Your task to perform on an android device: Open the Play Movies app and select the watchlist tab. Image 0: 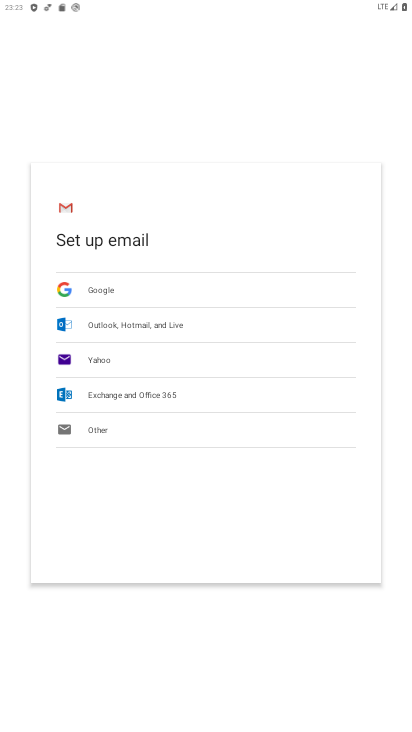
Step 0: press home button
Your task to perform on an android device: Open the Play Movies app and select the watchlist tab. Image 1: 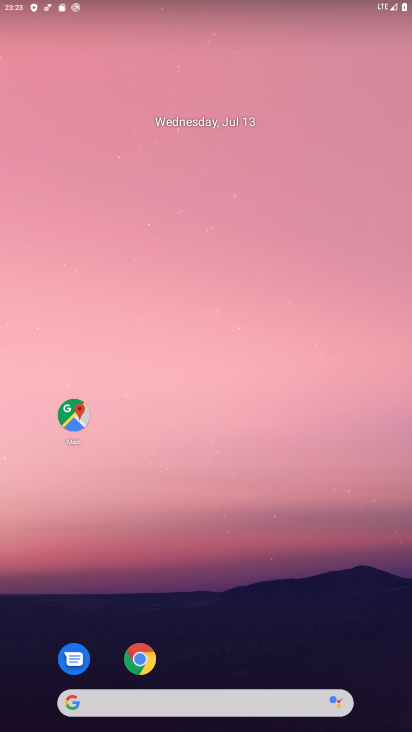
Step 1: drag from (348, 652) to (324, 270)
Your task to perform on an android device: Open the Play Movies app and select the watchlist tab. Image 2: 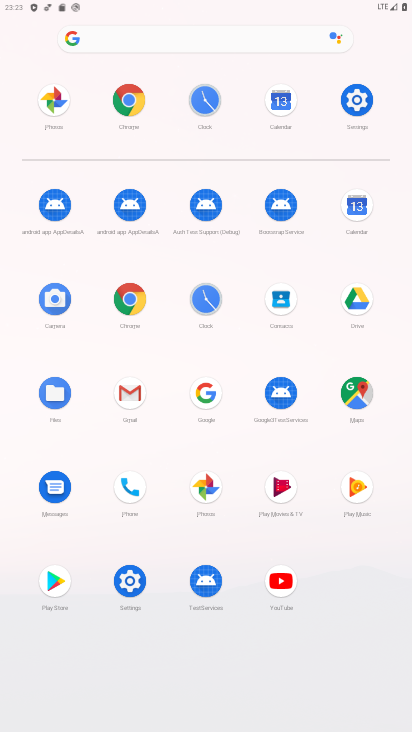
Step 2: click (285, 489)
Your task to perform on an android device: Open the Play Movies app and select the watchlist tab. Image 3: 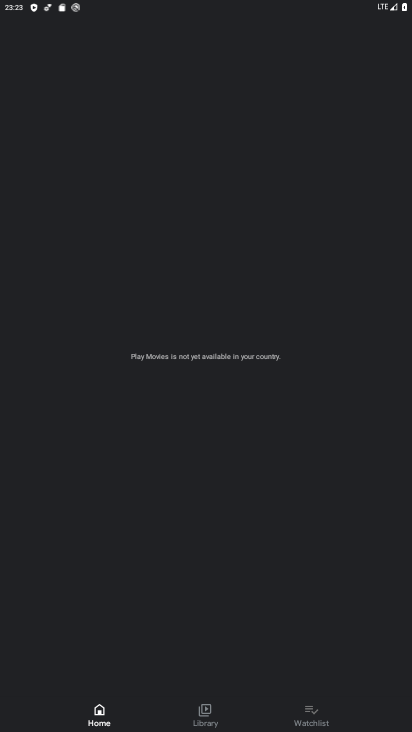
Step 3: click (319, 715)
Your task to perform on an android device: Open the Play Movies app and select the watchlist tab. Image 4: 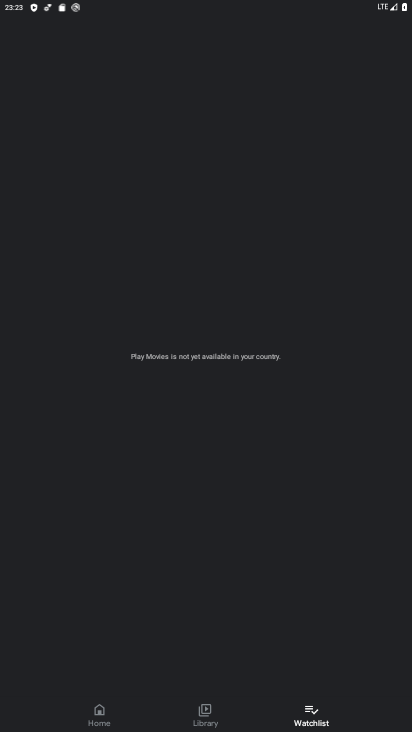
Step 4: task complete